Your task to perform on an android device: Go to Google Image 0: 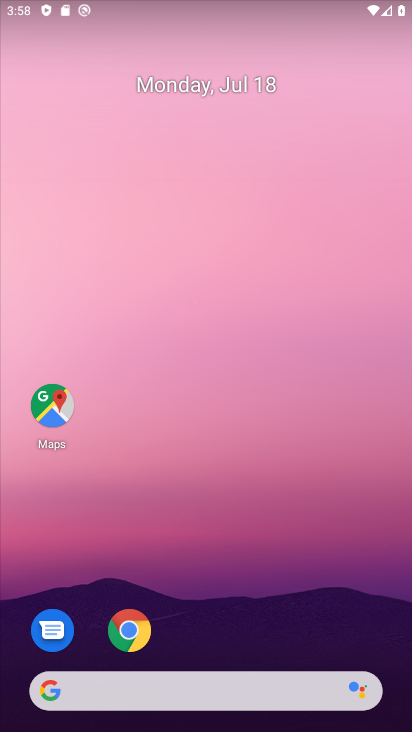
Step 0: drag from (243, 623) to (249, 250)
Your task to perform on an android device: Go to Google Image 1: 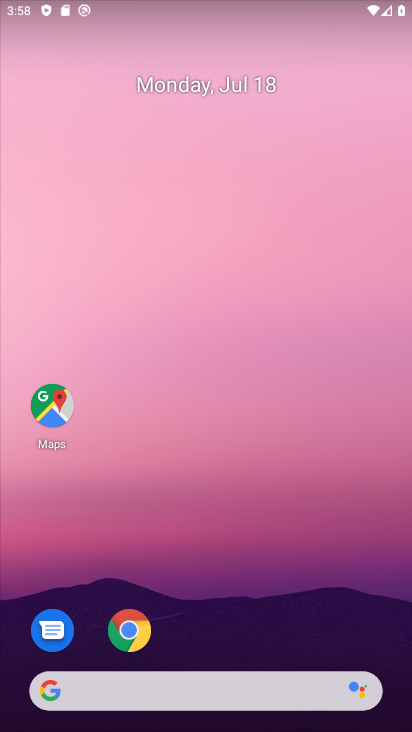
Step 1: drag from (285, 552) to (161, 25)
Your task to perform on an android device: Go to Google Image 2: 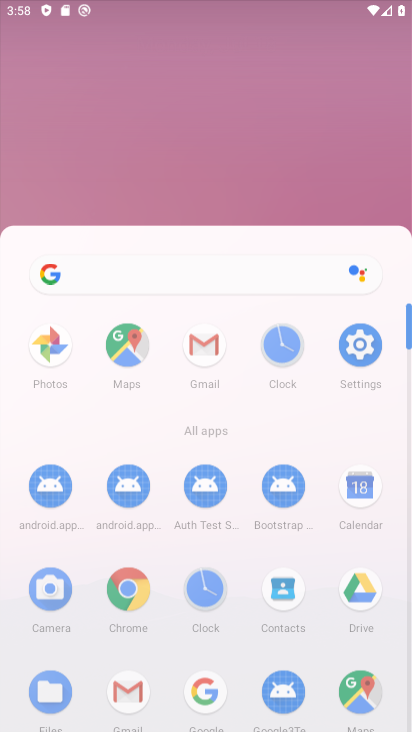
Step 2: drag from (197, 350) to (123, 0)
Your task to perform on an android device: Go to Google Image 3: 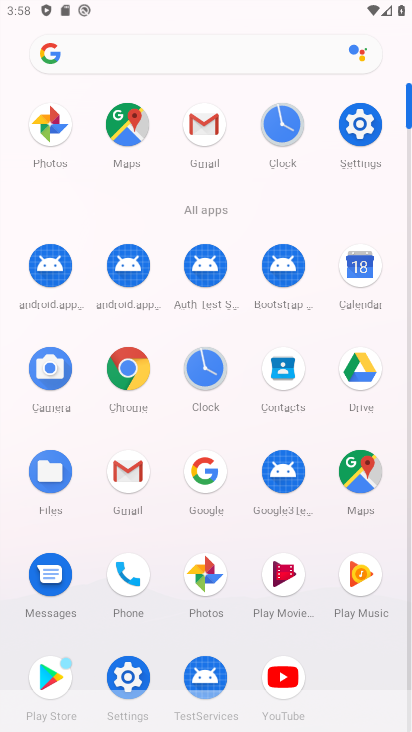
Step 3: drag from (215, 690) to (182, 32)
Your task to perform on an android device: Go to Google Image 4: 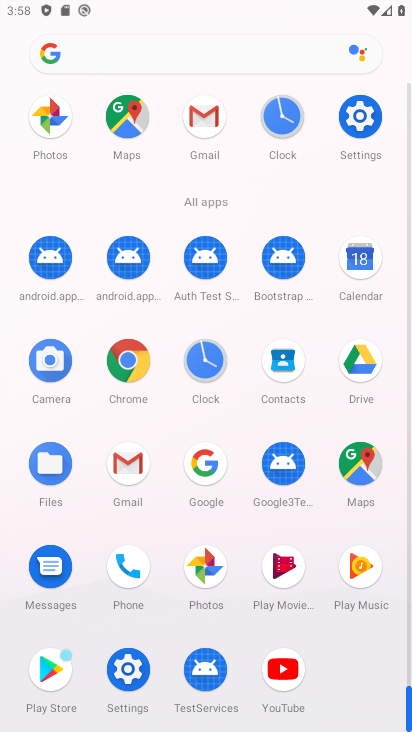
Step 4: click (216, 460)
Your task to perform on an android device: Go to Google Image 5: 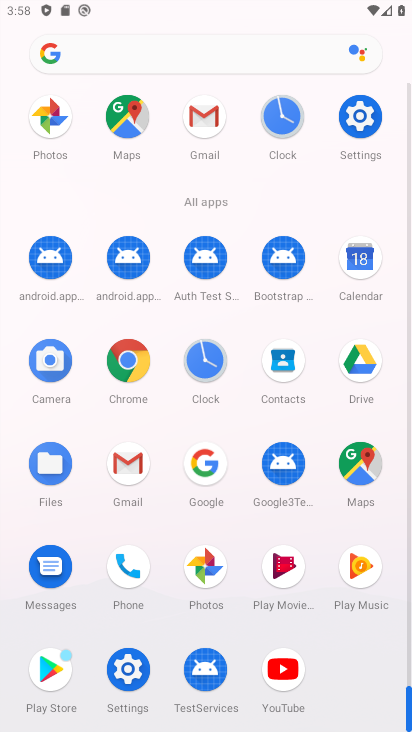
Step 5: click (211, 465)
Your task to perform on an android device: Go to Google Image 6: 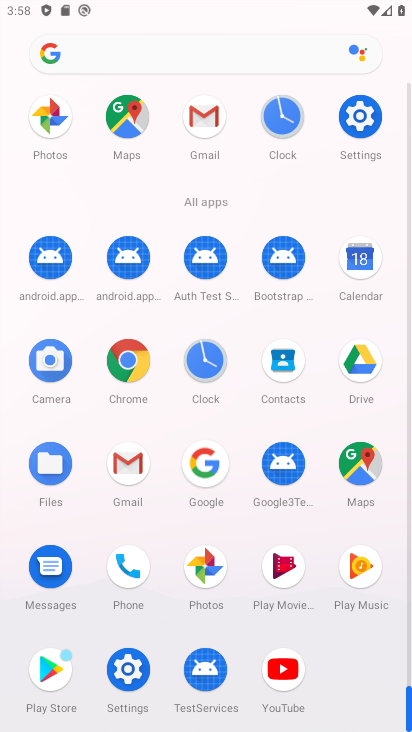
Step 6: click (211, 465)
Your task to perform on an android device: Go to Google Image 7: 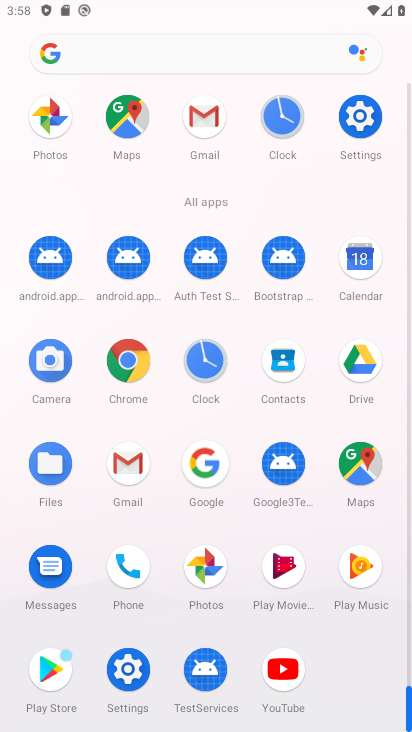
Step 7: click (211, 465)
Your task to perform on an android device: Go to Google Image 8: 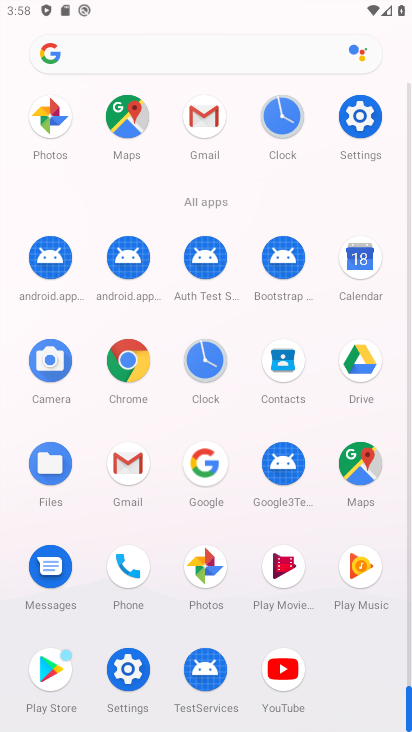
Step 8: click (203, 472)
Your task to perform on an android device: Go to Google Image 9: 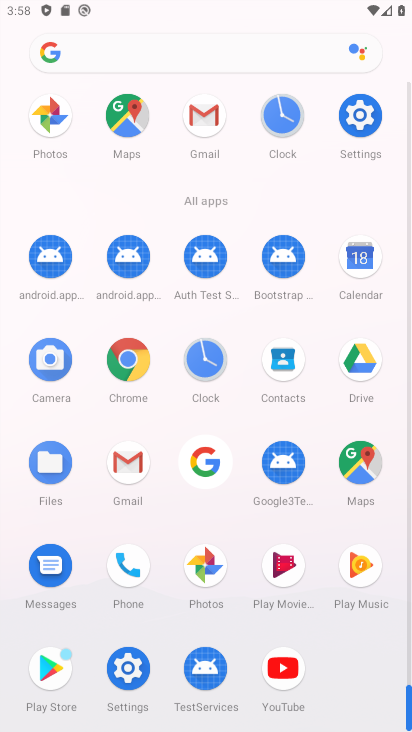
Step 9: click (204, 471)
Your task to perform on an android device: Go to Google Image 10: 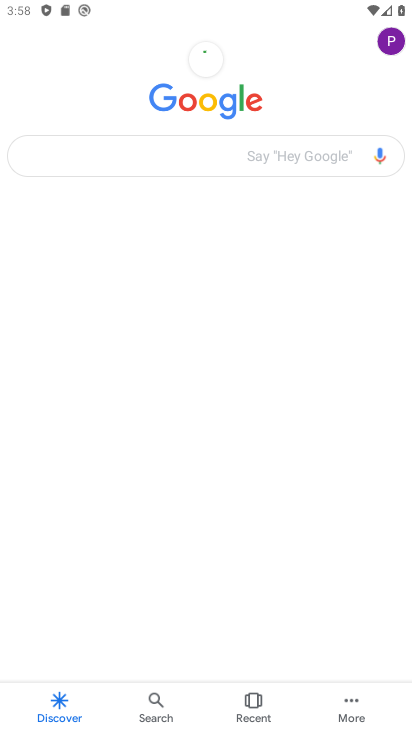
Step 10: task complete